Your task to perform on an android device: Open Wikipedia Image 0: 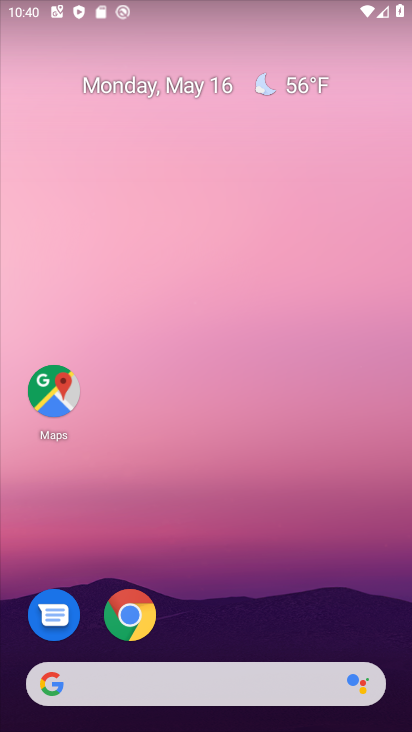
Step 0: drag from (308, 681) to (327, 263)
Your task to perform on an android device: Open Wikipedia Image 1: 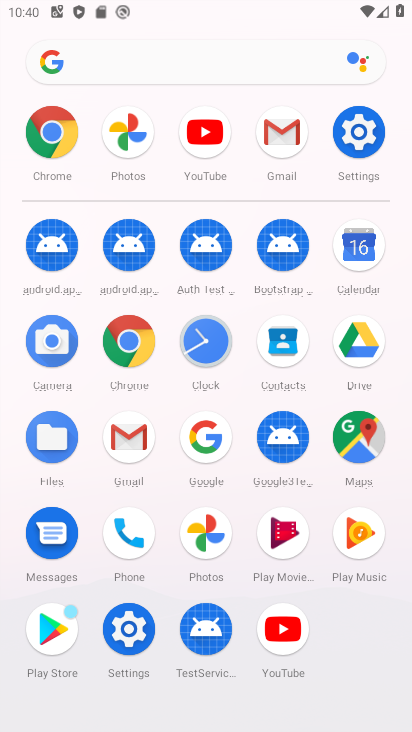
Step 1: click (115, 329)
Your task to perform on an android device: Open Wikipedia Image 2: 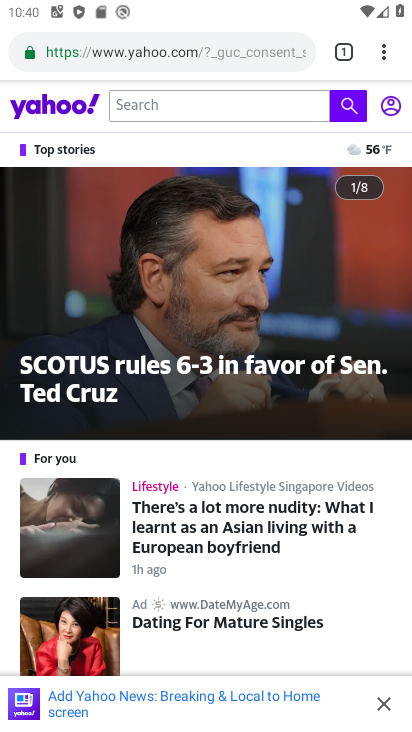
Step 2: click (182, 58)
Your task to perform on an android device: Open Wikipedia Image 3: 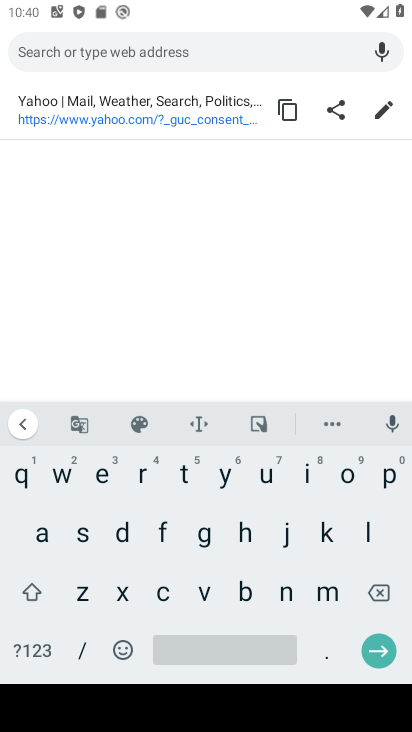
Step 3: click (69, 475)
Your task to perform on an android device: Open Wikipedia Image 4: 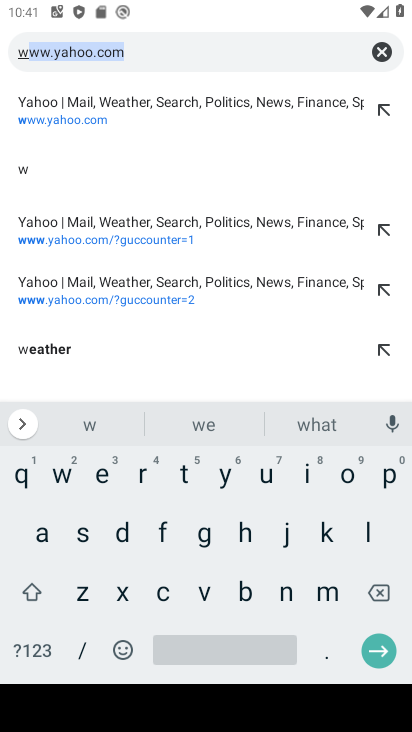
Step 4: click (304, 468)
Your task to perform on an android device: Open Wikipedia Image 5: 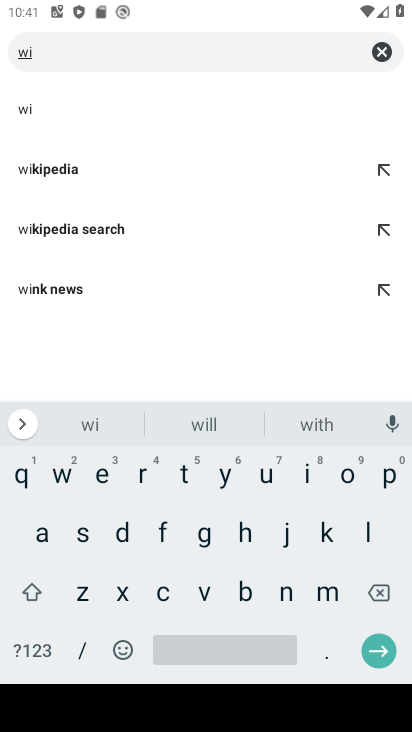
Step 5: click (326, 535)
Your task to perform on an android device: Open Wikipedia Image 6: 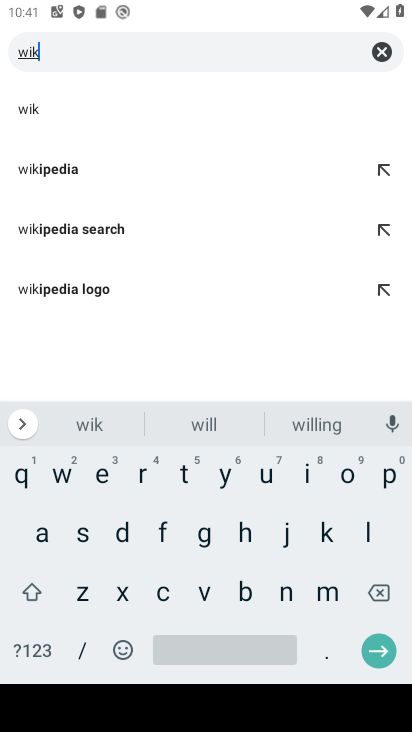
Step 6: click (61, 172)
Your task to perform on an android device: Open Wikipedia Image 7: 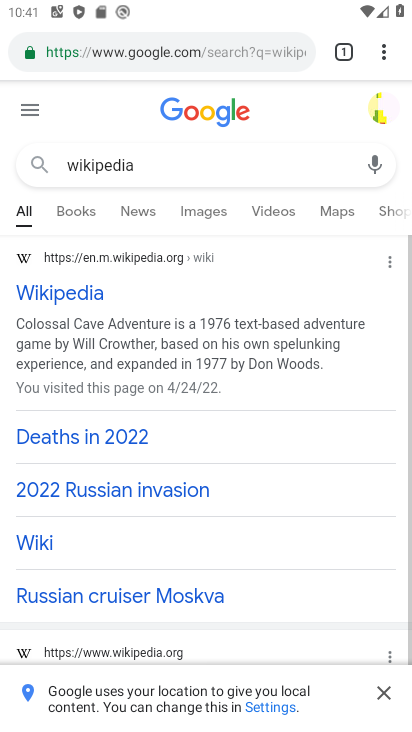
Step 7: task complete